Your task to perform on an android device: Open calendar and show me the first week of next month Image 0: 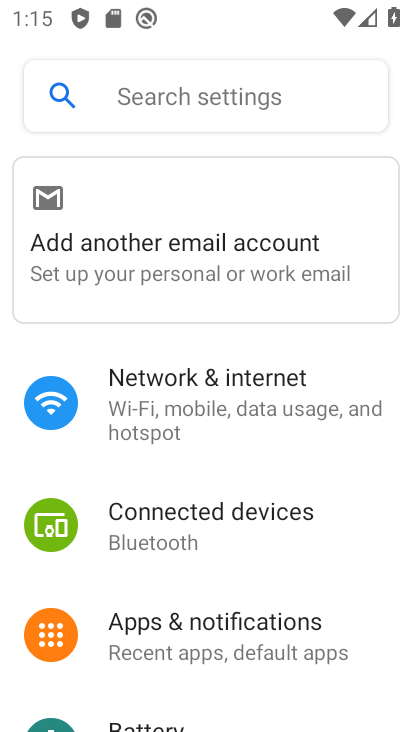
Step 0: press home button
Your task to perform on an android device: Open calendar and show me the first week of next month Image 1: 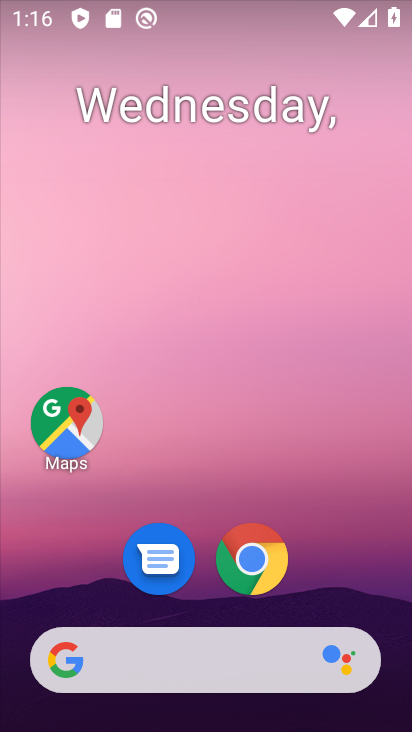
Step 1: drag from (241, 476) to (260, 18)
Your task to perform on an android device: Open calendar and show me the first week of next month Image 2: 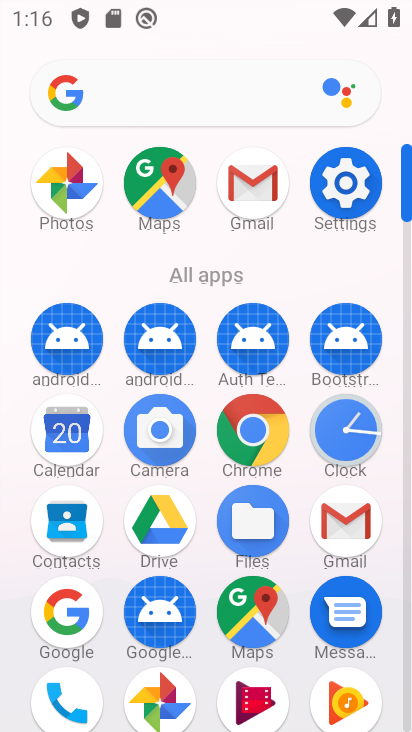
Step 2: click (77, 439)
Your task to perform on an android device: Open calendar and show me the first week of next month Image 3: 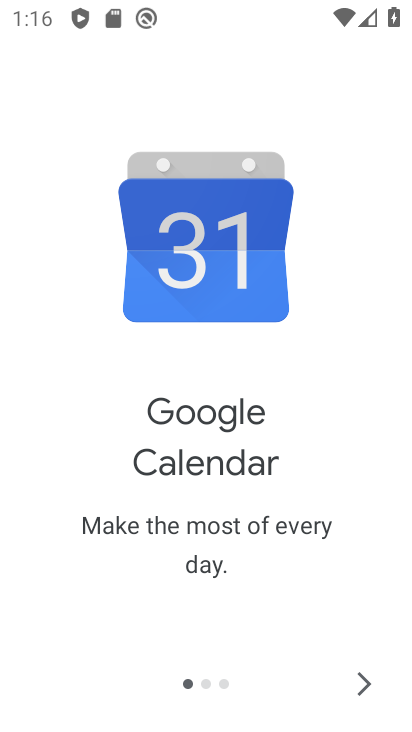
Step 3: click (368, 693)
Your task to perform on an android device: Open calendar and show me the first week of next month Image 4: 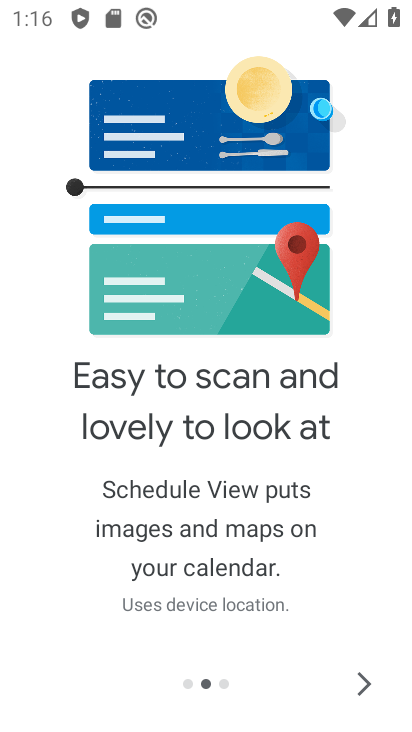
Step 4: click (368, 693)
Your task to perform on an android device: Open calendar and show me the first week of next month Image 5: 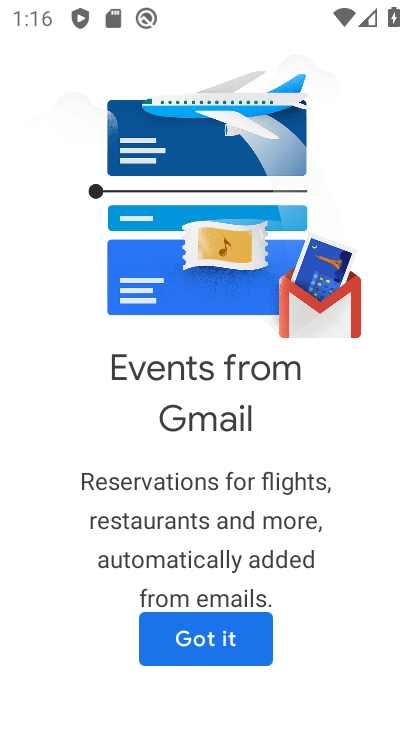
Step 5: click (368, 693)
Your task to perform on an android device: Open calendar and show me the first week of next month Image 6: 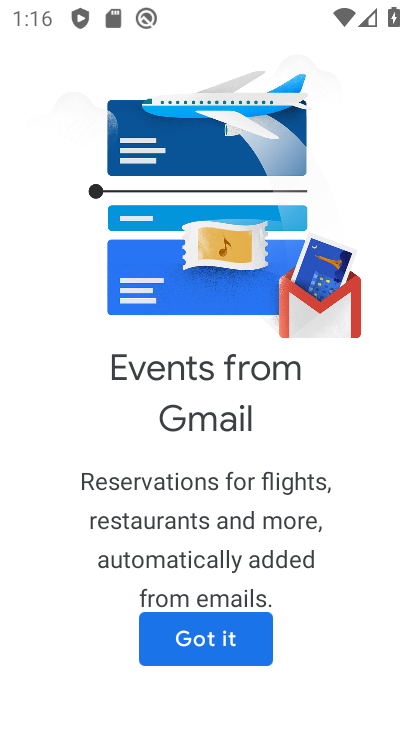
Step 6: click (368, 693)
Your task to perform on an android device: Open calendar and show me the first week of next month Image 7: 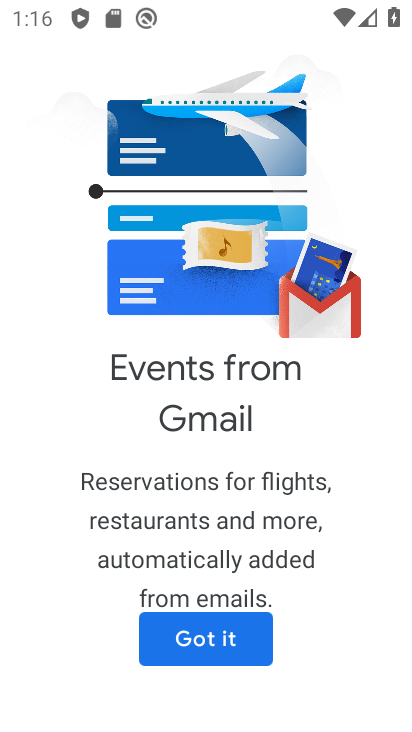
Step 7: click (200, 648)
Your task to perform on an android device: Open calendar and show me the first week of next month Image 8: 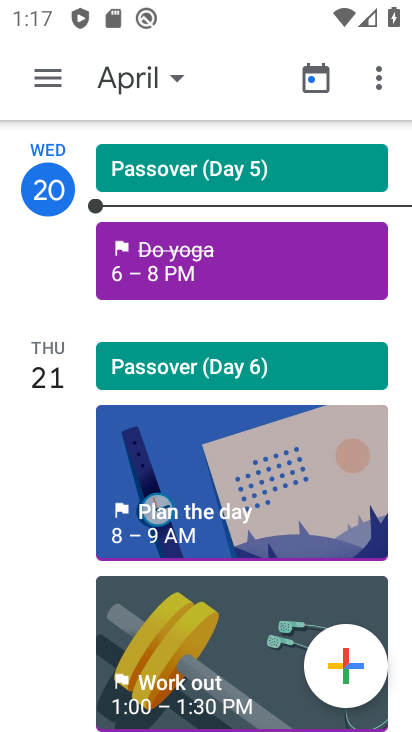
Step 8: click (155, 74)
Your task to perform on an android device: Open calendar and show me the first week of next month Image 9: 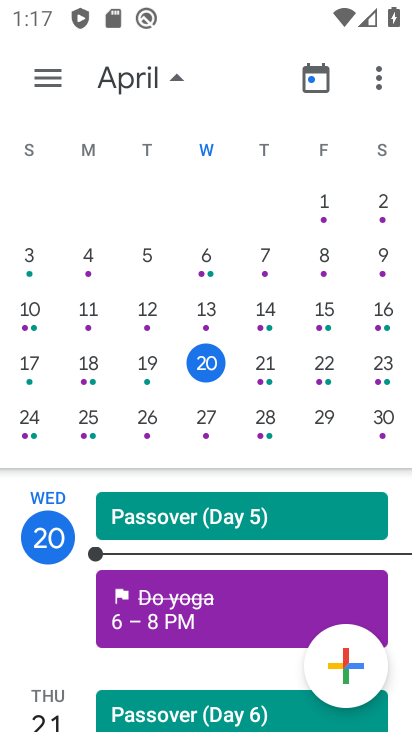
Step 9: drag from (308, 300) to (12, 290)
Your task to perform on an android device: Open calendar and show me the first week of next month Image 10: 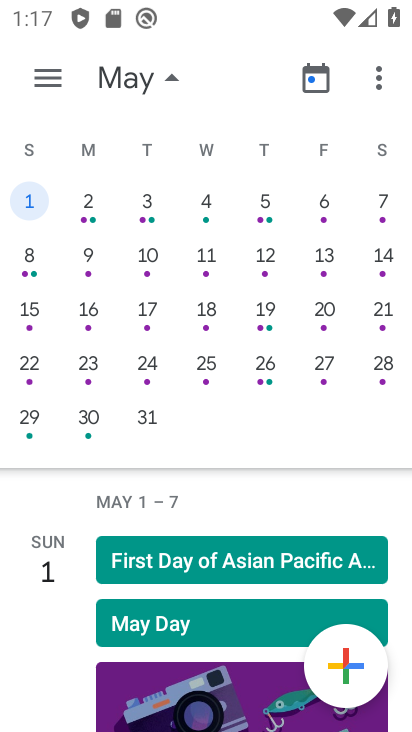
Step 10: click (46, 92)
Your task to perform on an android device: Open calendar and show me the first week of next month Image 11: 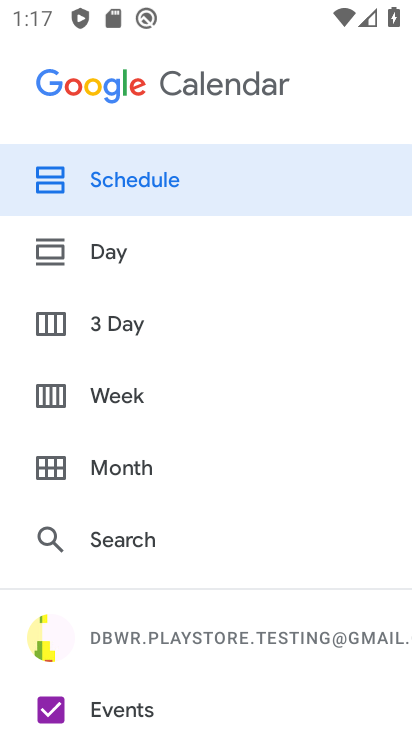
Step 11: click (145, 402)
Your task to perform on an android device: Open calendar and show me the first week of next month Image 12: 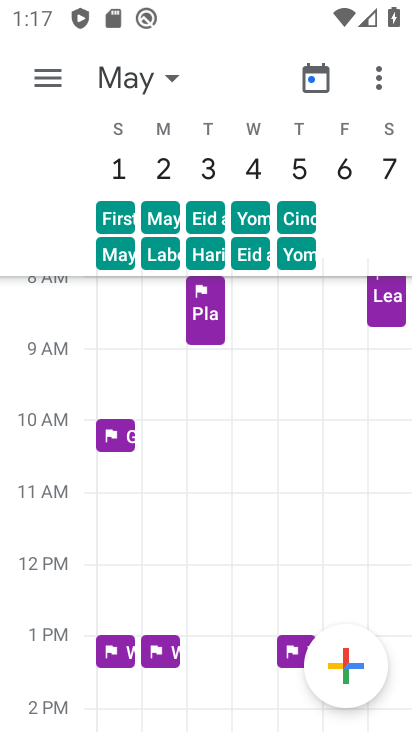
Step 12: task complete